Your task to perform on an android device: delete browsing data in the chrome app Image 0: 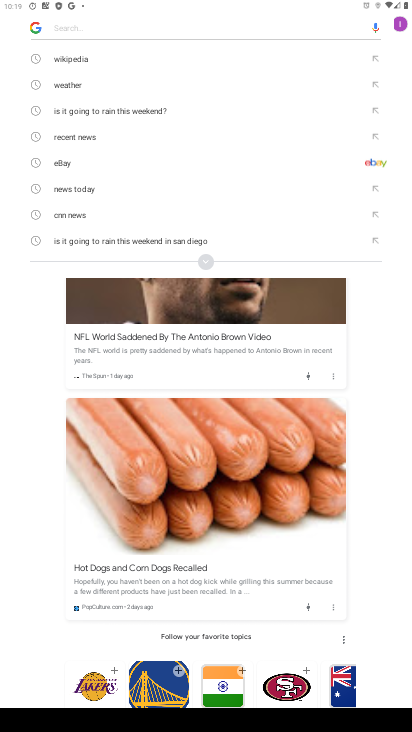
Step 0: drag from (284, 178) to (396, 706)
Your task to perform on an android device: delete browsing data in the chrome app Image 1: 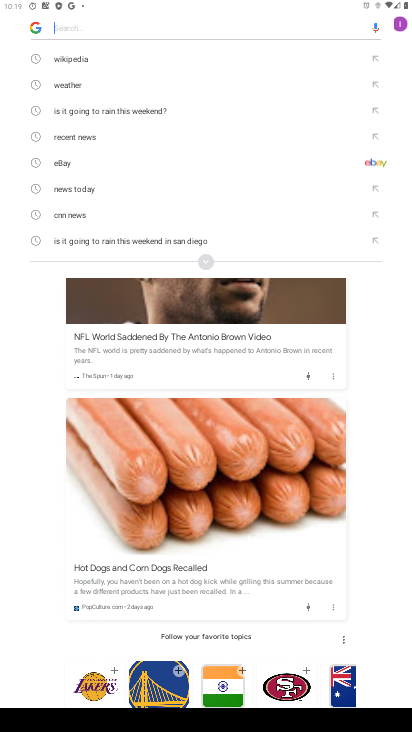
Step 1: drag from (403, 20) to (344, 173)
Your task to perform on an android device: delete browsing data in the chrome app Image 2: 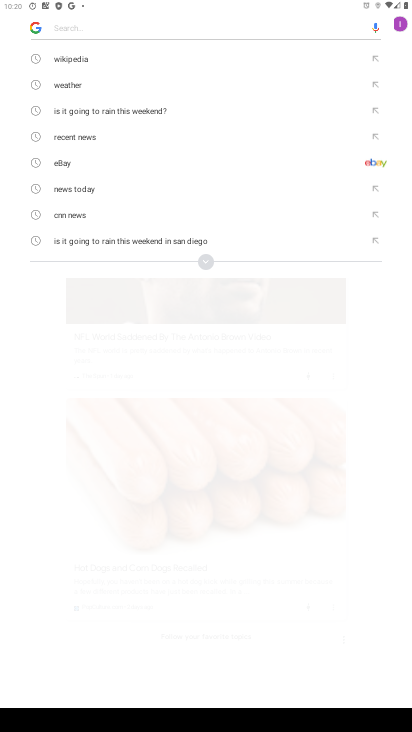
Step 2: press home button
Your task to perform on an android device: delete browsing data in the chrome app Image 3: 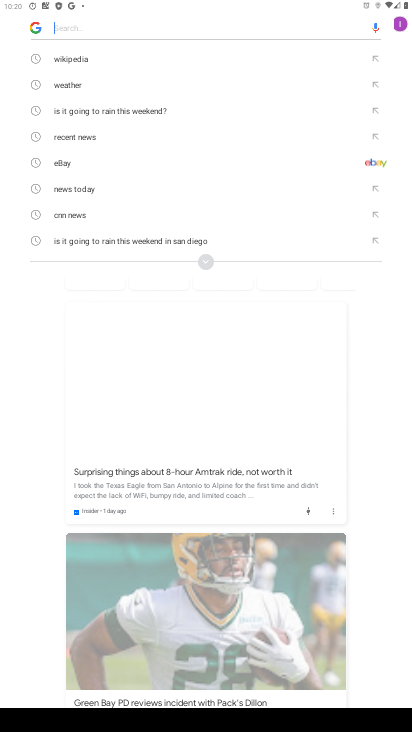
Step 3: drag from (243, 326) to (261, 186)
Your task to perform on an android device: delete browsing data in the chrome app Image 4: 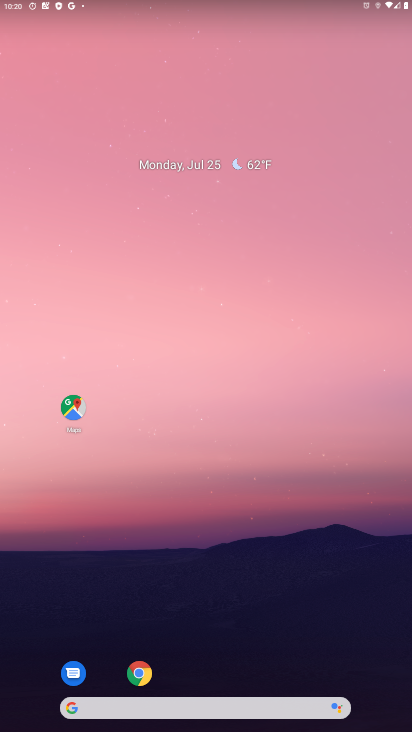
Step 4: click (137, 673)
Your task to perform on an android device: delete browsing data in the chrome app Image 5: 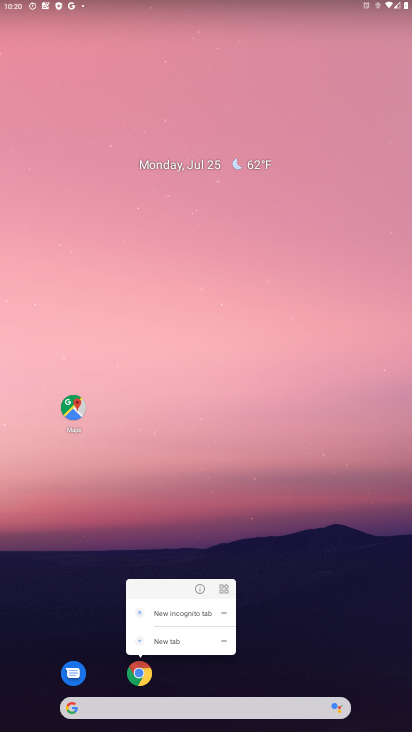
Step 5: click (199, 585)
Your task to perform on an android device: delete browsing data in the chrome app Image 6: 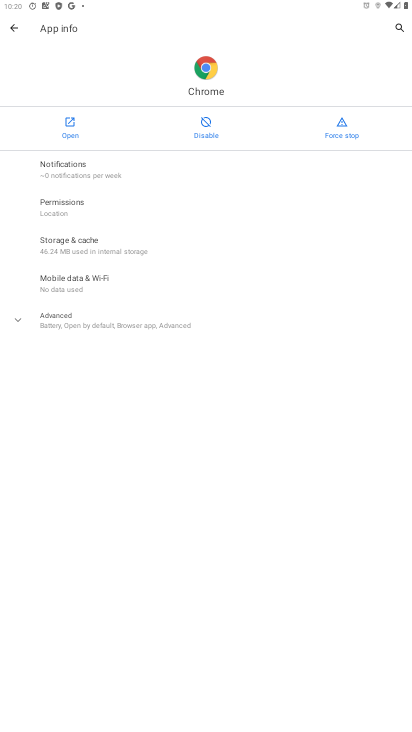
Step 6: click (64, 114)
Your task to perform on an android device: delete browsing data in the chrome app Image 7: 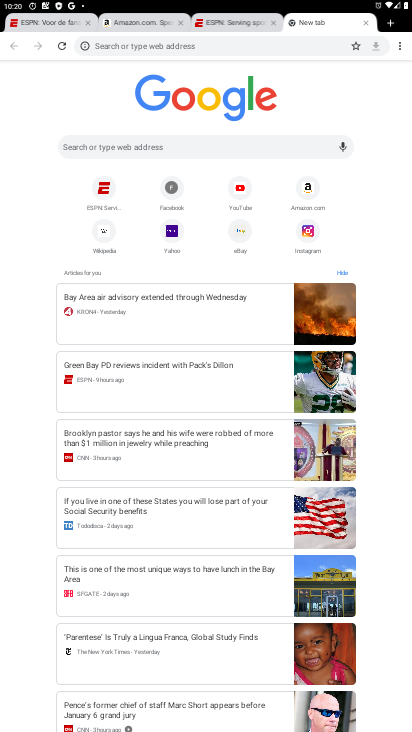
Step 7: drag from (394, 43) to (327, 137)
Your task to perform on an android device: delete browsing data in the chrome app Image 8: 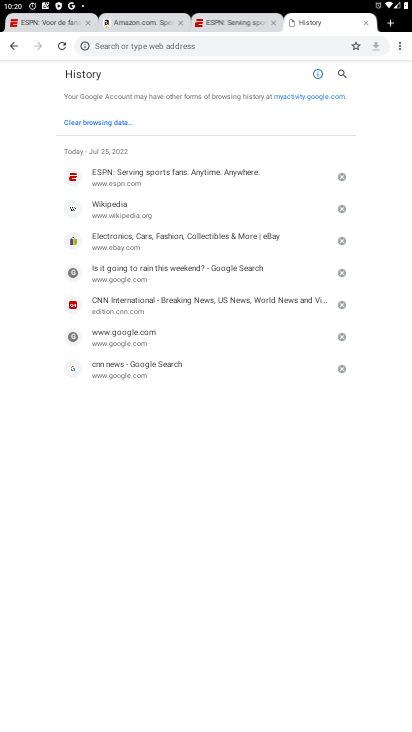
Step 8: click (89, 124)
Your task to perform on an android device: delete browsing data in the chrome app Image 9: 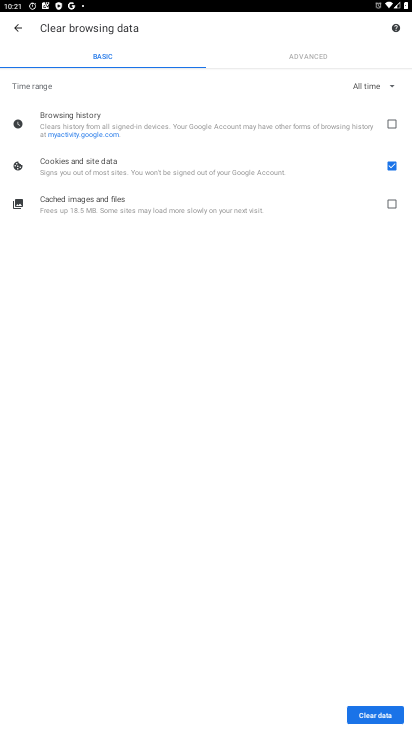
Step 9: click (398, 121)
Your task to perform on an android device: delete browsing data in the chrome app Image 10: 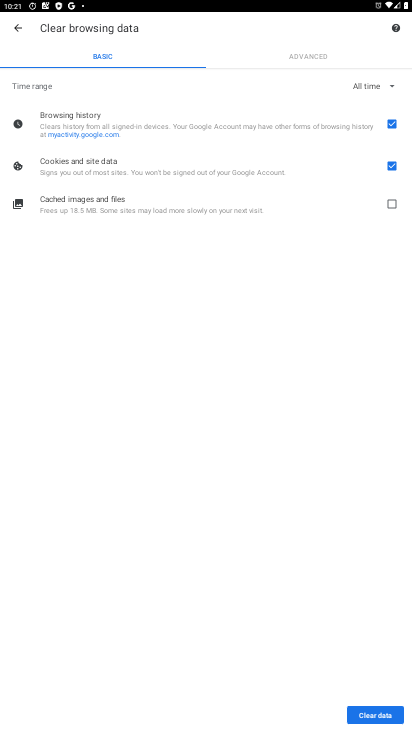
Step 10: click (381, 203)
Your task to perform on an android device: delete browsing data in the chrome app Image 11: 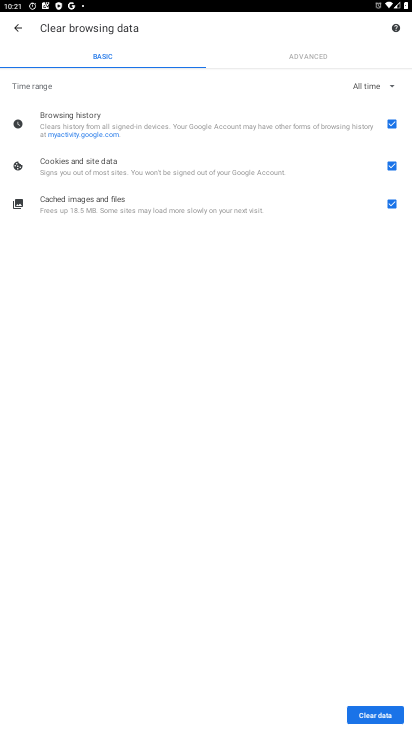
Step 11: click (377, 708)
Your task to perform on an android device: delete browsing data in the chrome app Image 12: 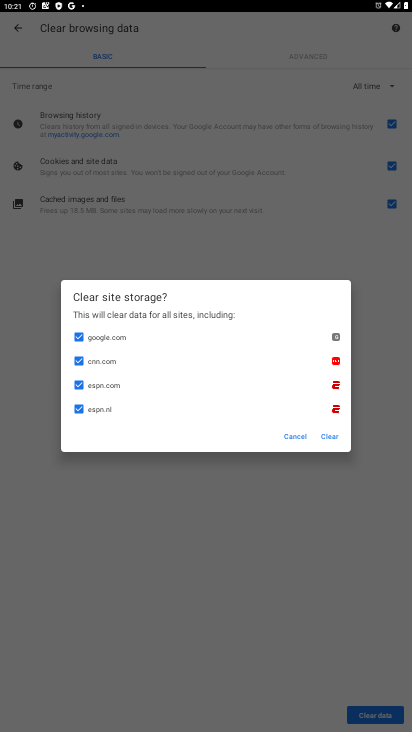
Step 12: click (333, 423)
Your task to perform on an android device: delete browsing data in the chrome app Image 13: 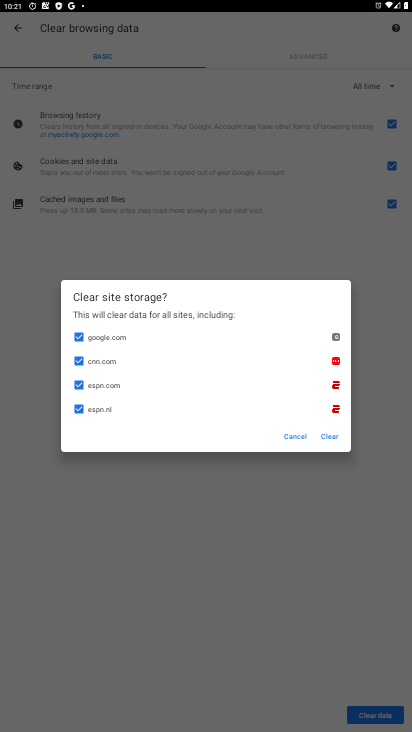
Step 13: click (333, 432)
Your task to perform on an android device: delete browsing data in the chrome app Image 14: 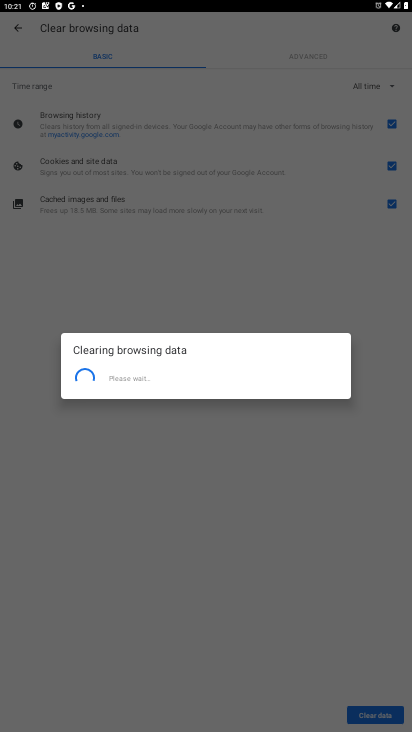
Step 14: task complete